Your task to perform on an android device: change notifications settings Image 0: 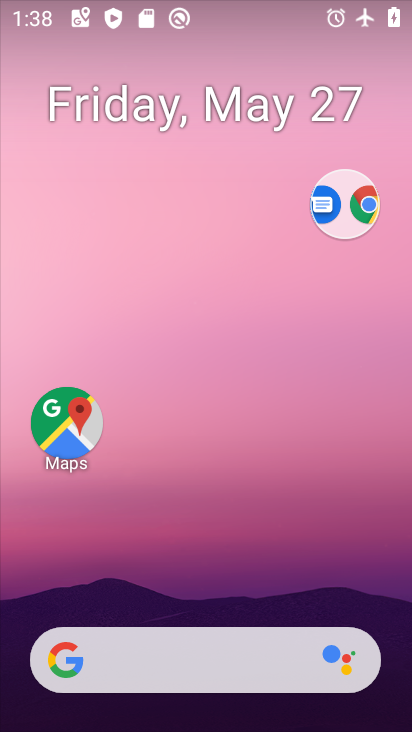
Step 0: drag from (240, 610) to (240, 87)
Your task to perform on an android device: change notifications settings Image 1: 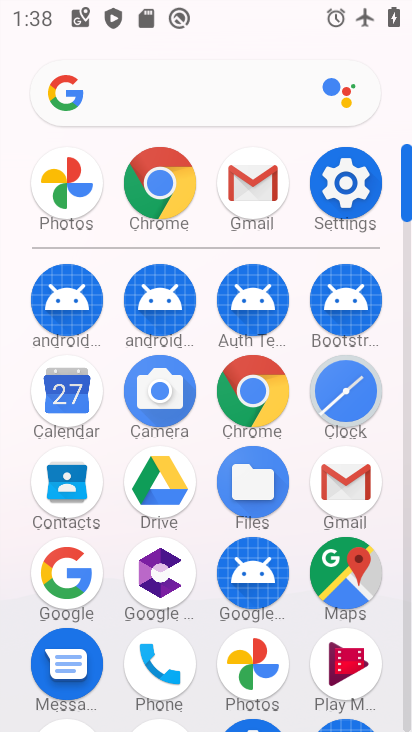
Step 1: click (359, 171)
Your task to perform on an android device: change notifications settings Image 2: 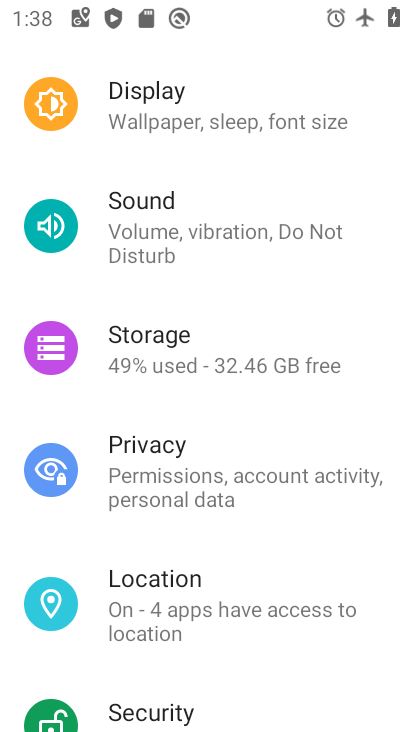
Step 2: drag from (172, 355) to (173, 640)
Your task to perform on an android device: change notifications settings Image 3: 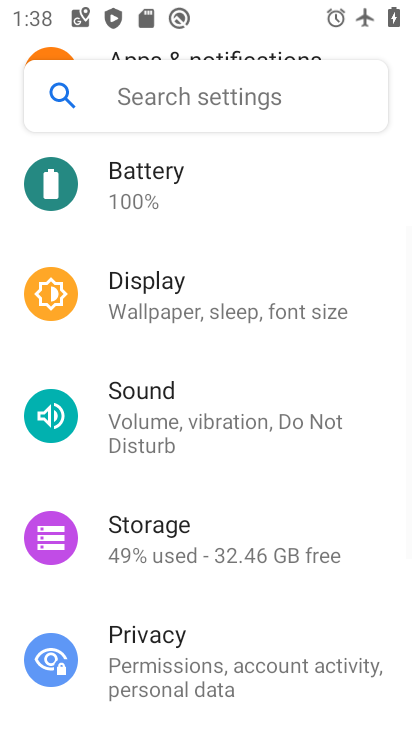
Step 3: drag from (189, 296) to (189, 599)
Your task to perform on an android device: change notifications settings Image 4: 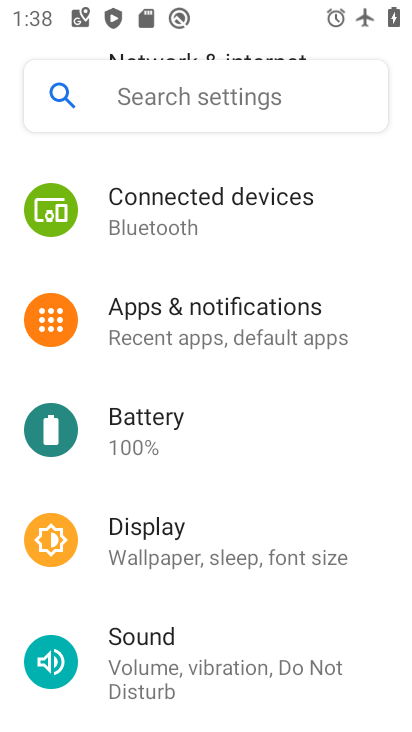
Step 4: click (189, 301)
Your task to perform on an android device: change notifications settings Image 5: 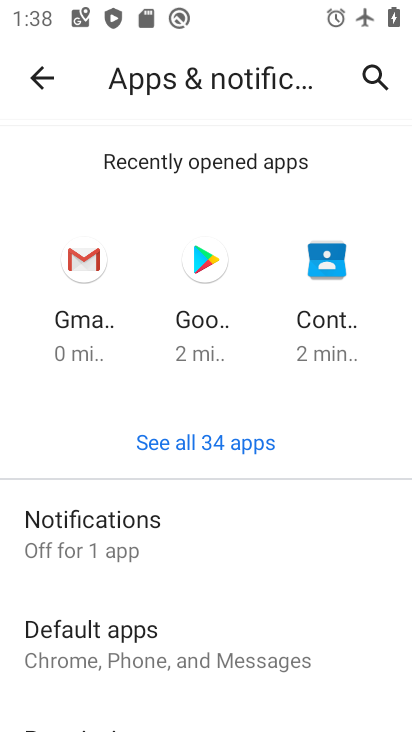
Step 5: click (190, 530)
Your task to perform on an android device: change notifications settings Image 6: 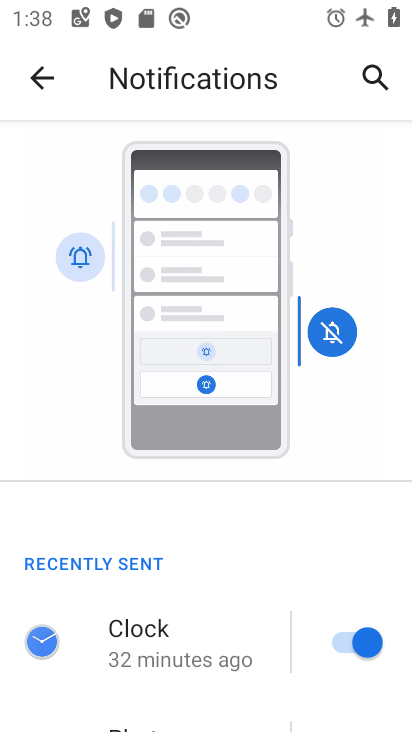
Step 6: drag from (235, 579) to (274, 290)
Your task to perform on an android device: change notifications settings Image 7: 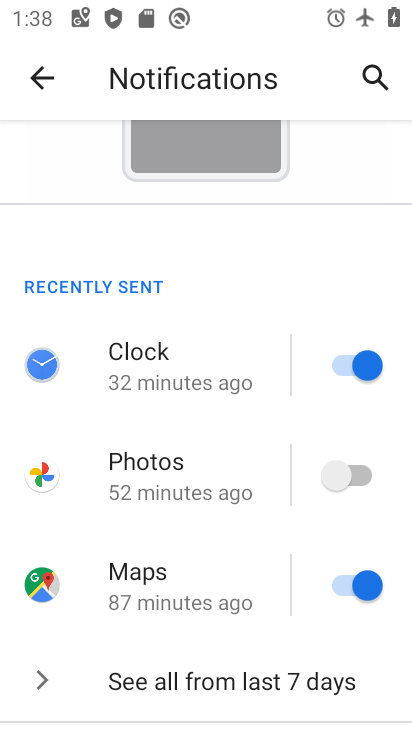
Step 7: click (367, 475)
Your task to perform on an android device: change notifications settings Image 8: 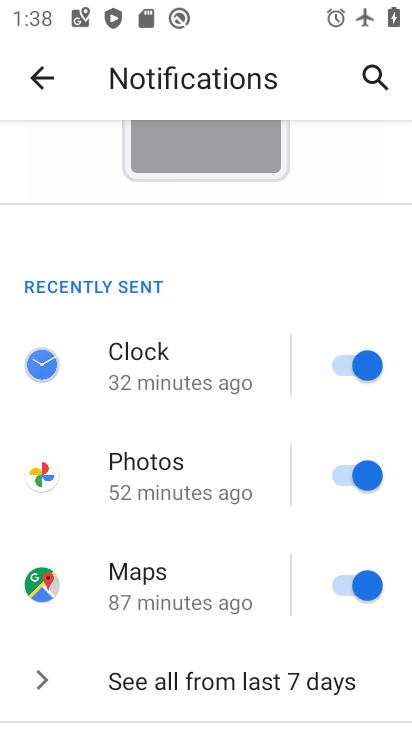
Step 8: task complete